Your task to perform on an android device: find which apps use the phone's location Image 0: 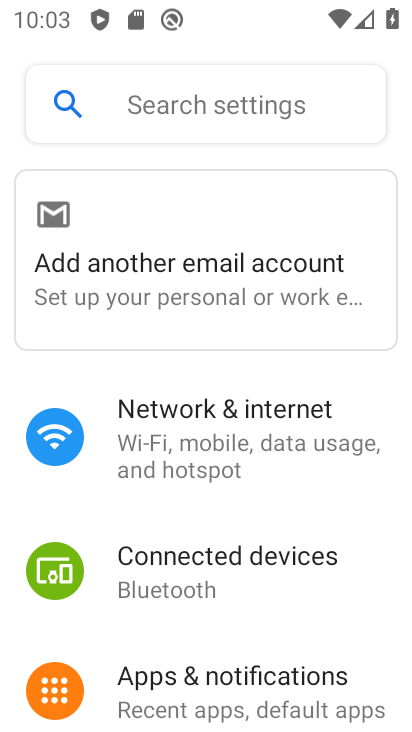
Step 0: drag from (186, 628) to (249, 537)
Your task to perform on an android device: find which apps use the phone's location Image 1: 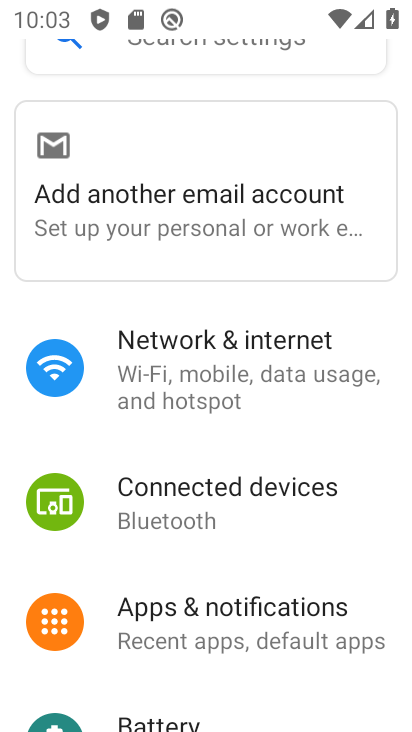
Step 1: drag from (179, 681) to (240, 530)
Your task to perform on an android device: find which apps use the phone's location Image 2: 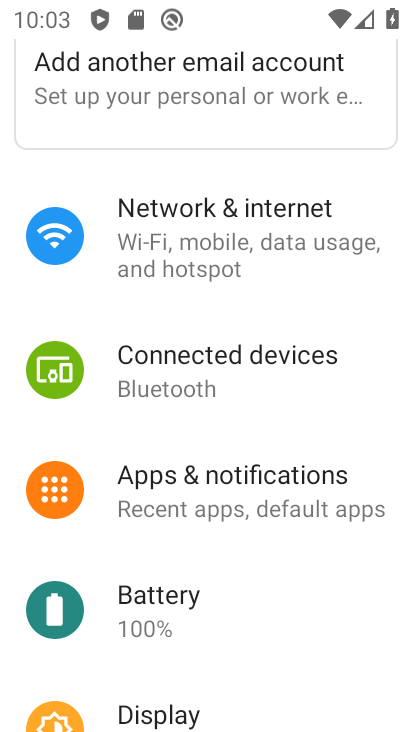
Step 2: drag from (158, 649) to (214, 522)
Your task to perform on an android device: find which apps use the phone's location Image 3: 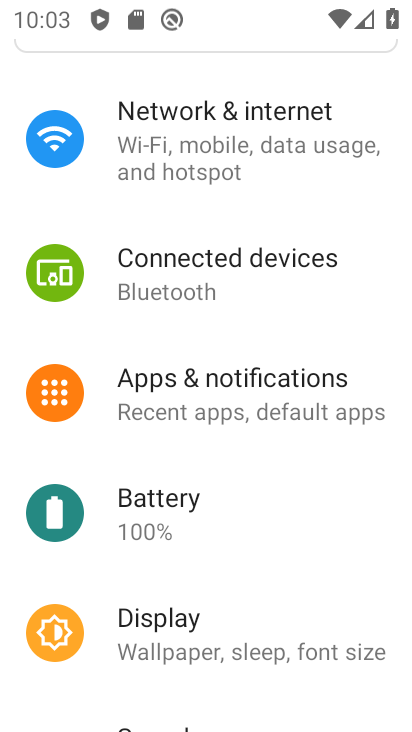
Step 3: drag from (160, 580) to (251, 442)
Your task to perform on an android device: find which apps use the phone's location Image 4: 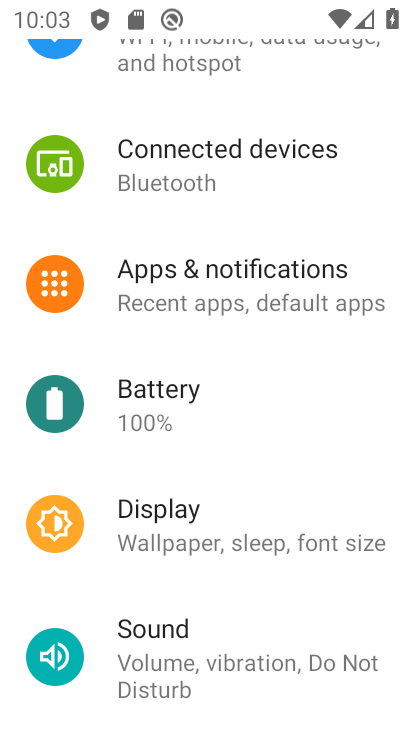
Step 4: drag from (136, 591) to (199, 466)
Your task to perform on an android device: find which apps use the phone's location Image 5: 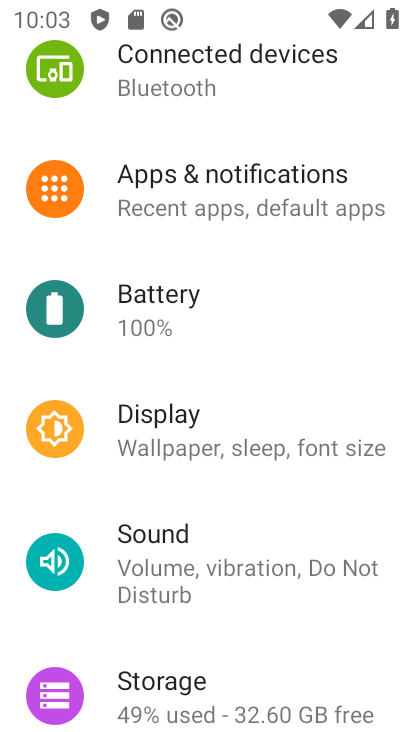
Step 5: drag from (128, 626) to (189, 470)
Your task to perform on an android device: find which apps use the phone's location Image 6: 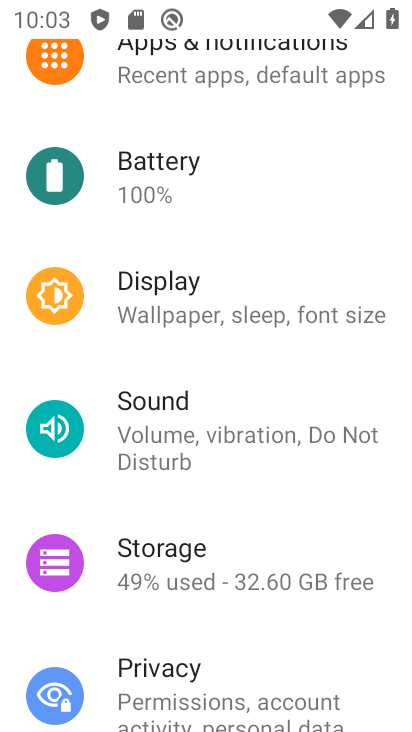
Step 6: drag from (130, 610) to (206, 494)
Your task to perform on an android device: find which apps use the phone's location Image 7: 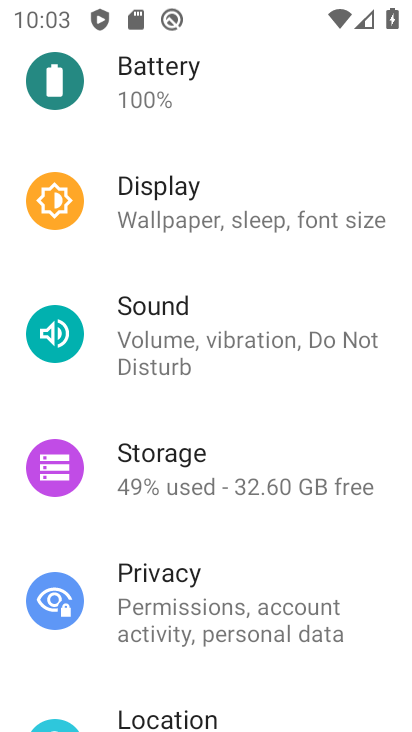
Step 7: drag from (114, 682) to (209, 559)
Your task to perform on an android device: find which apps use the phone's location Image 8: 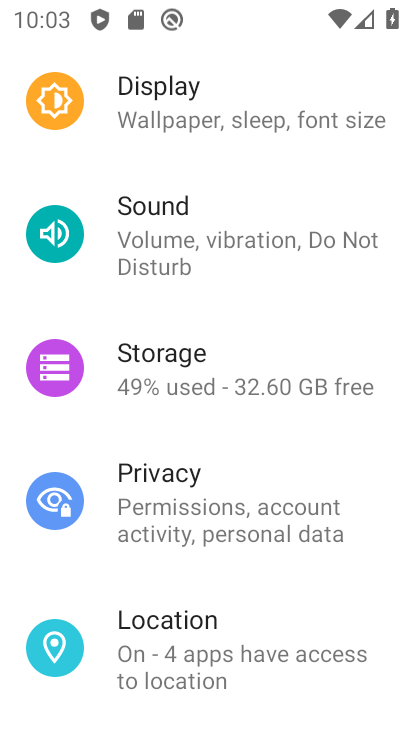
Step 8: drag from (162, 583) to (264, 446)
Your task to perform on an android device: find which apps use the phone's location Image 9: 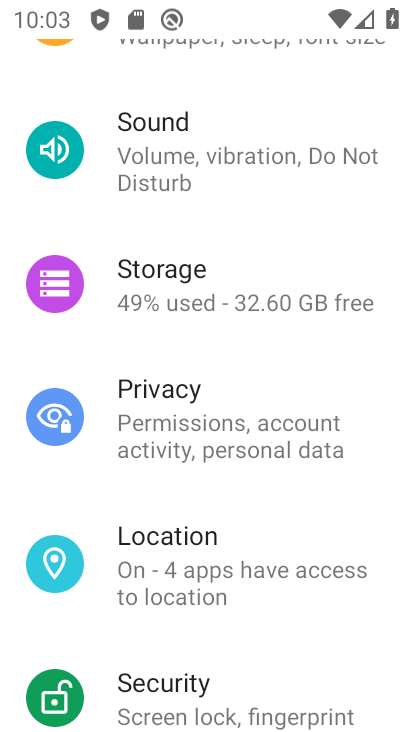
Step 9: click (177, 552)
Your task to perform on an android device: find which apps use the phone's location Image 10: 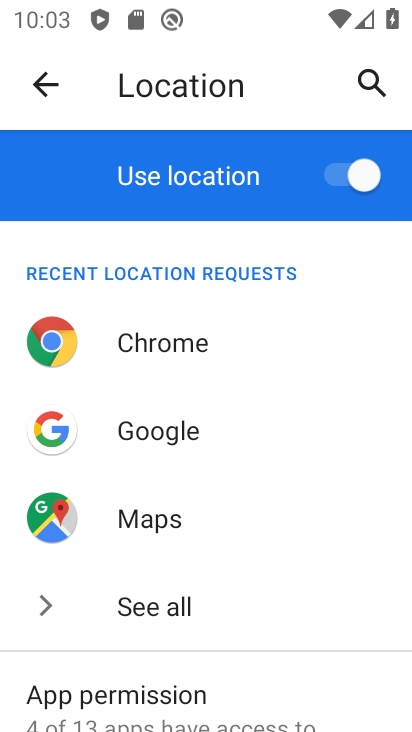
Step 10: drag from (211, 636) to (262, 508)
Your task to perform on an android device: find which apps use the phone's location Image 11: 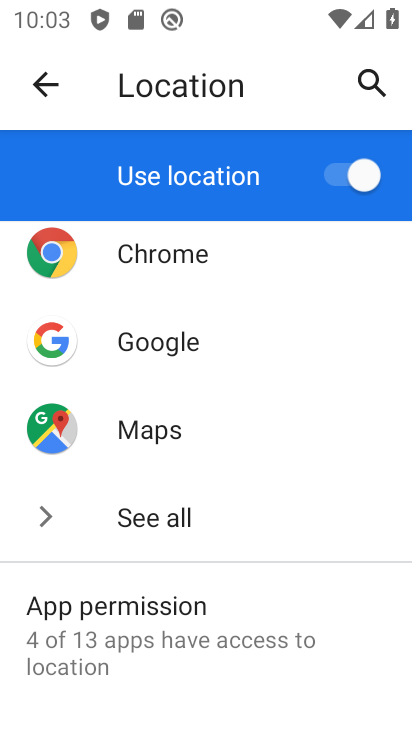
Step 11: drag from (183, 653) to (268, 544)
Your task to perform on an android device: find which apps use the phone's location Image 12: 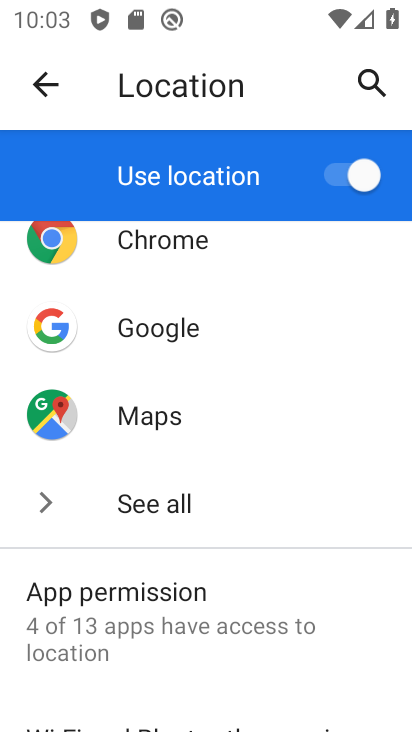
Step 12: drag from (178, 683) to (261, 480)
Your task to perform on an android device: find which apps use the phone's location Image 13: 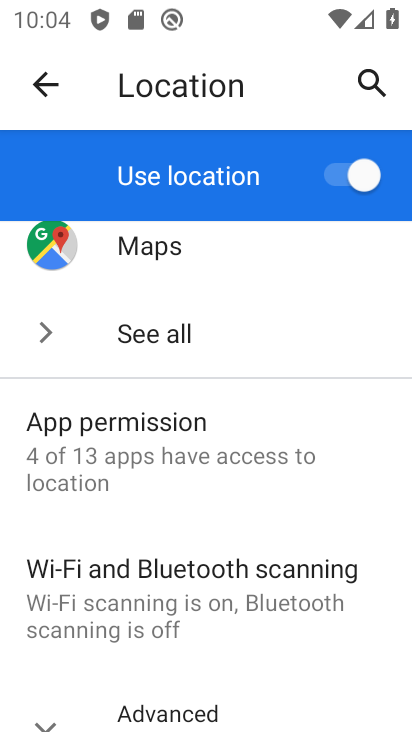
Step 13: drag from (210, 642) to (266, 498)
Your task to perform on an android device: find which apps use the phone's location Image 14: 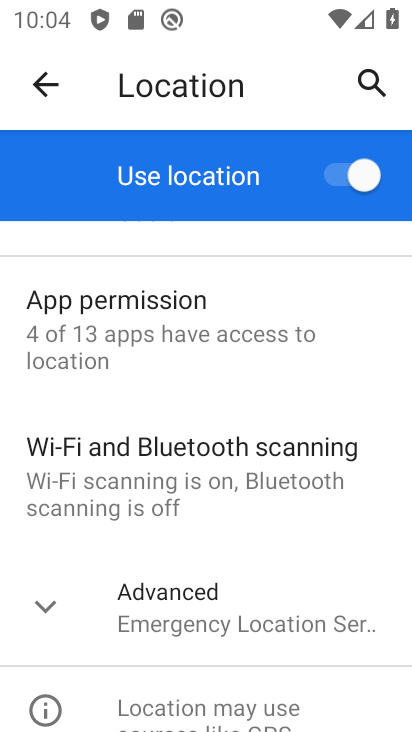
Step 14: click (138, 344)
Your task to perform on an android device: find which apps use the phone's location Image 15: 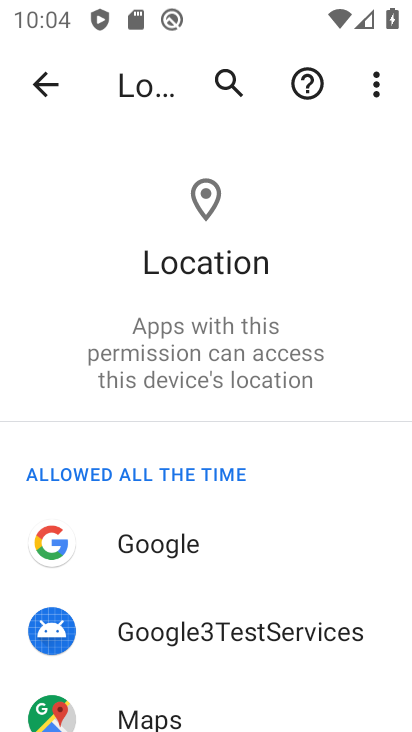
Step 15: drag from (189, 681) to (250, 545)
Your task to perform on an android device: find which apps use the phone's location Image 16: 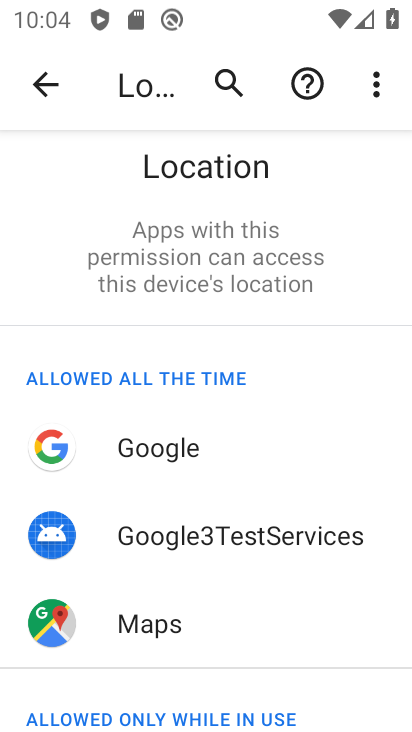
Step 16: click (152, 620)
Your task to perform on an android device: find which apps use the phone's location Image 17: 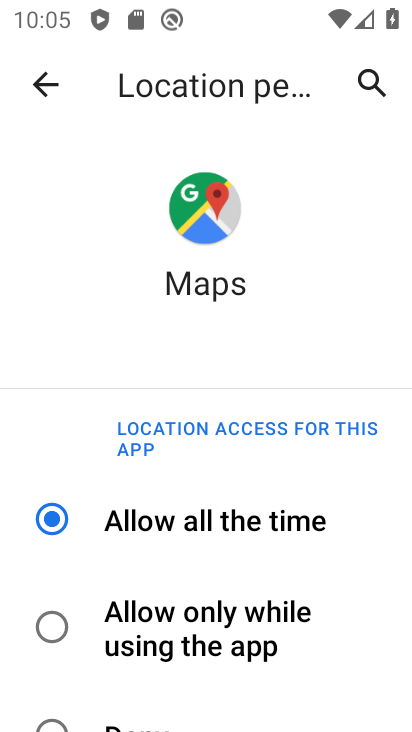
Step 17: task complete